Your task to perform on an android device: see tabs open on other devices in the chrome app Image 0: 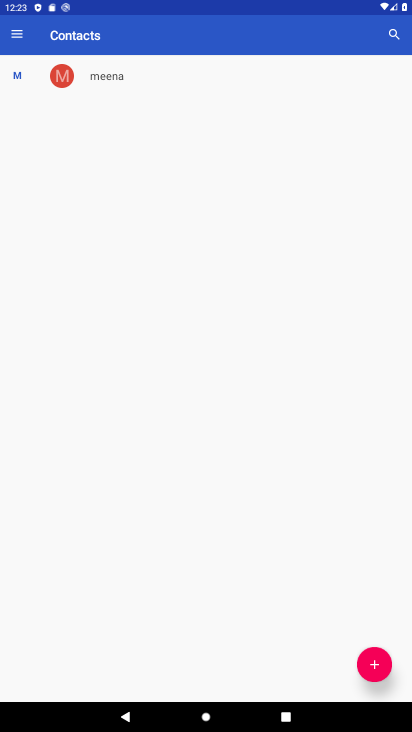
Step 0: press home button
Your task to perform on an android device: see tabs open on other devices in the chrome app Image 1: 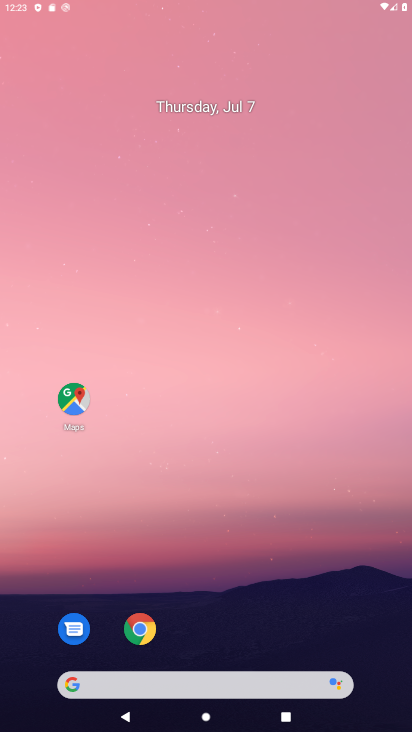
Step 1: click (142, 627)
Your task to perform on an android device: see tabs open on other devices in the chrome app Image 2: 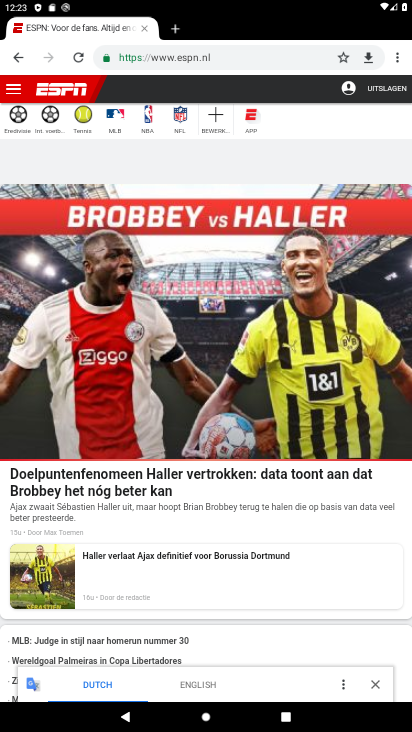
Step 2: click (398, 57)
Your task to perform on an android device: see tabs open on other devices in the chrome app Image 3: 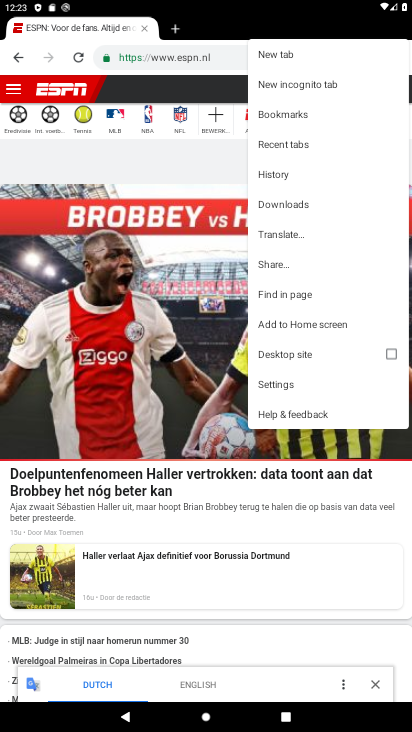
Step 3: click (304, 136)
Your task to perform on an android device: see tabs open on other devices in the chrome app Image 4: 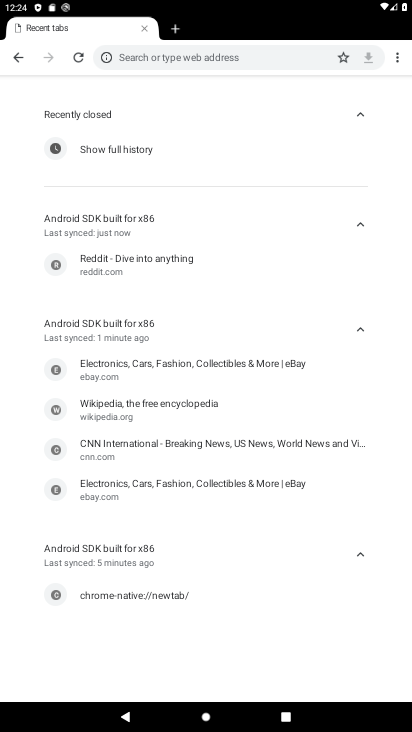
Step 4: task complete